Your task to perform on an android device: turn on wifi Image 0: 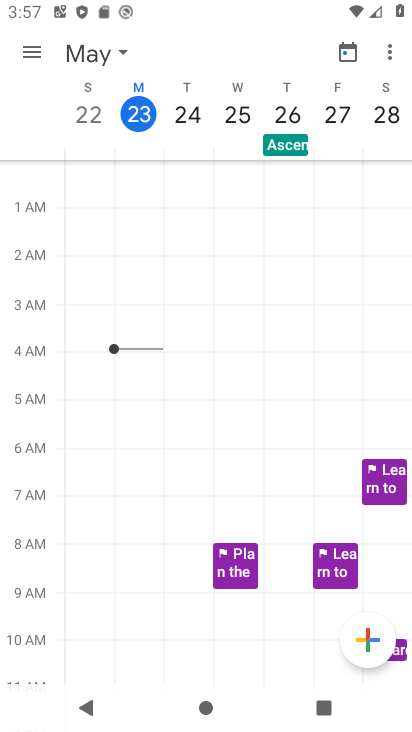
Step 0: press home button
Your task to perform on an android device: turn on wifi Image 1: 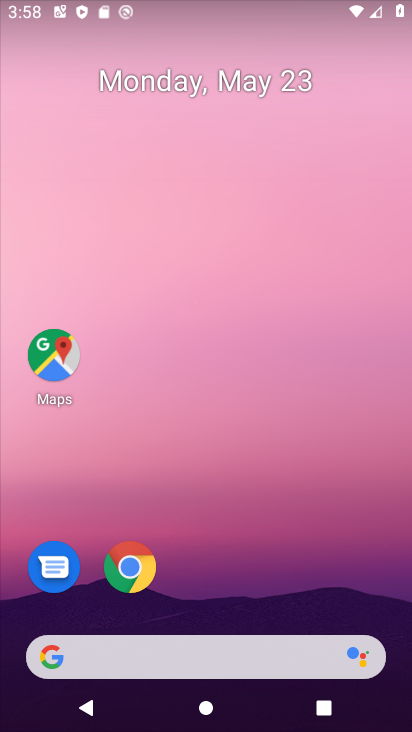
Step 1: drag from (381, 617) to (275, 101)
Your task to perform on an android device: turn on wifi Image 2: 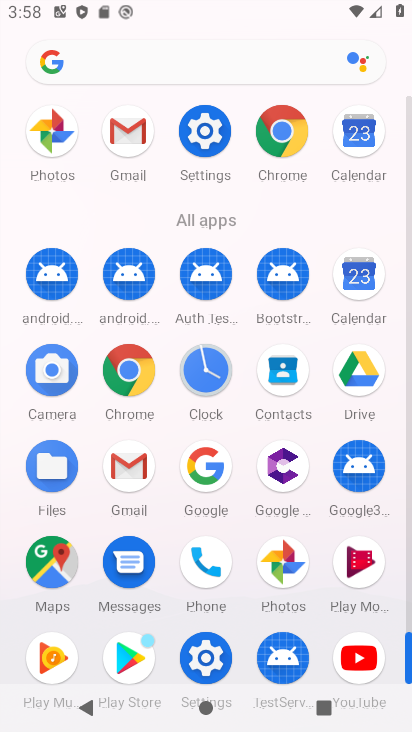
Step 2: click (208, 659)
Your task to perform on an android device: turn on wifi Image 3: 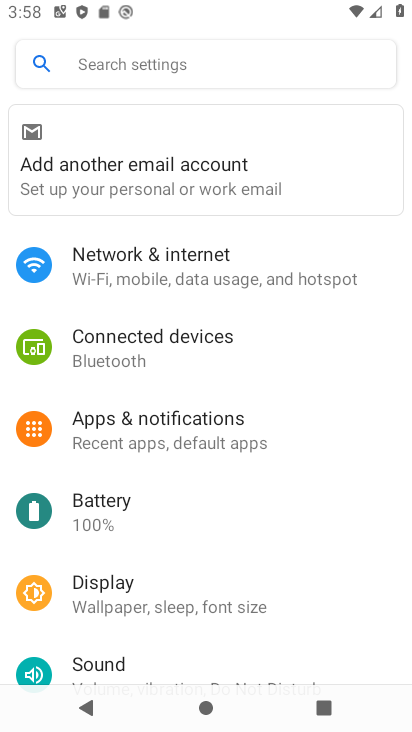
Step 3: click (158, 265)
Your task to perform on an android device: turn on wifi Image 4: 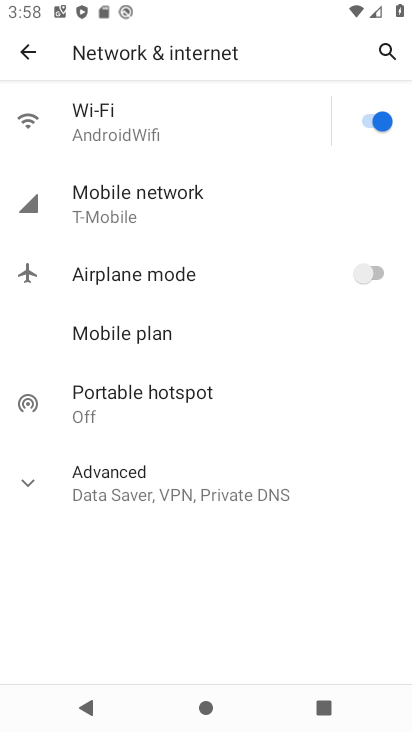
Step 4: task complete